Your task to perform on an android device: install app "Google Play Games" Image 0: 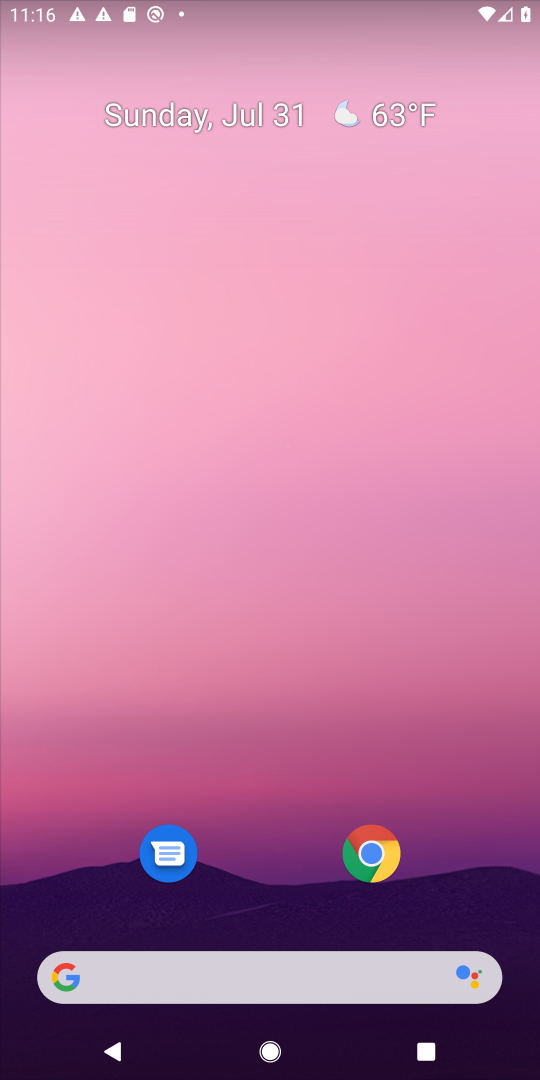
Step 0: drag from (330, 1049) to (293, 82)
Your task to perform on an android device: install app "Google Play Games" Image 1: 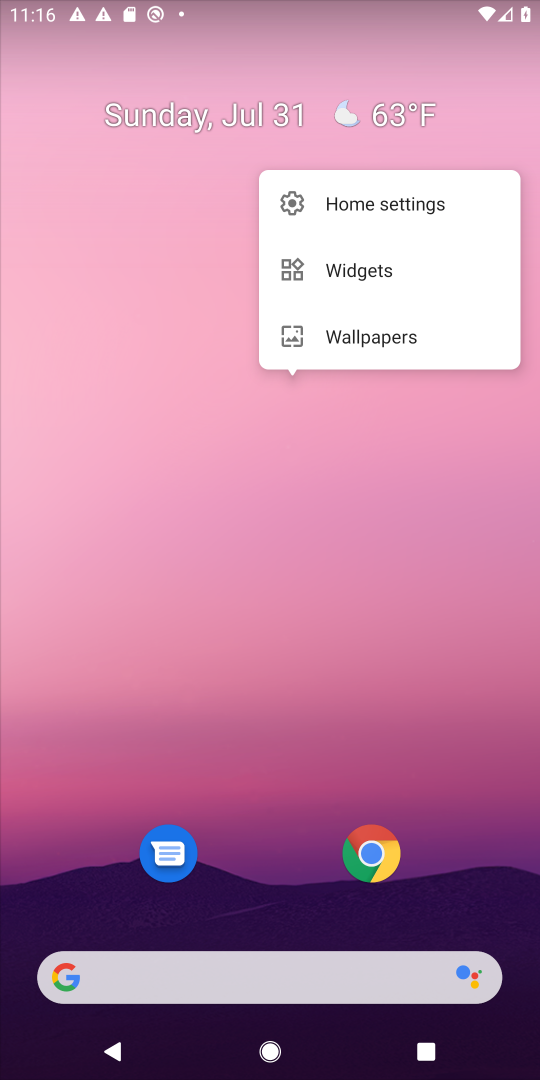
Step 1: click (317, 560)
Your task to perform on an android device: install app "Google Play Games" Image 2: 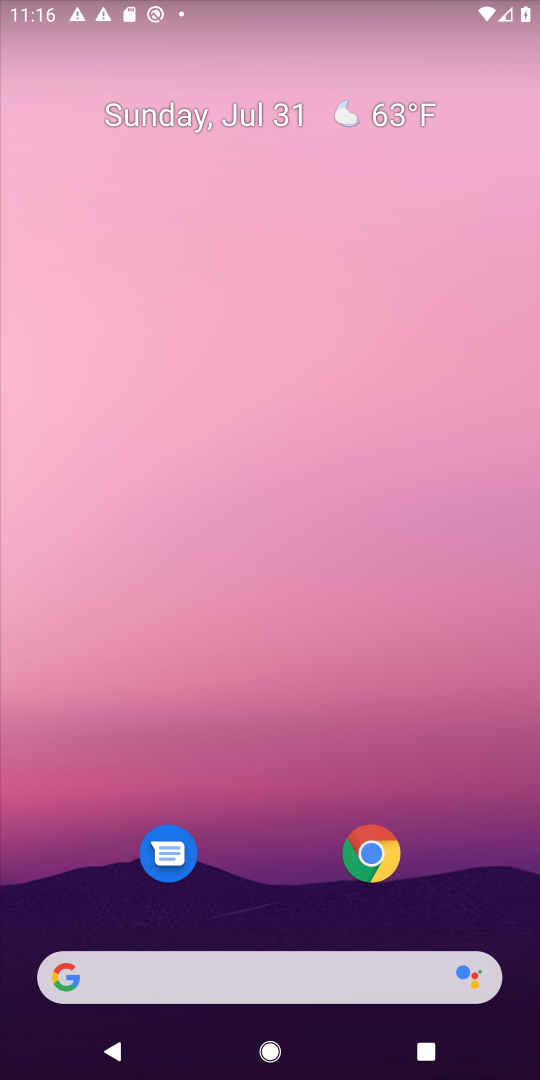
Step 2: click (326, 75)
Your task to perform on an android device: install app "Google Play Games" Image 3: 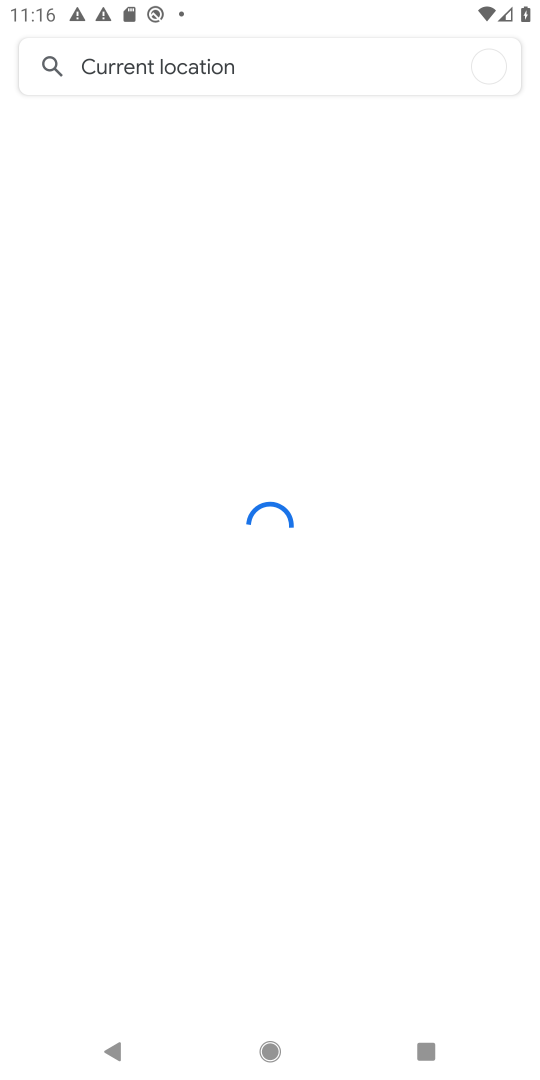
Step 3: press home button
Your task to perform on an android device: install app "Google Play Games" Image 4: 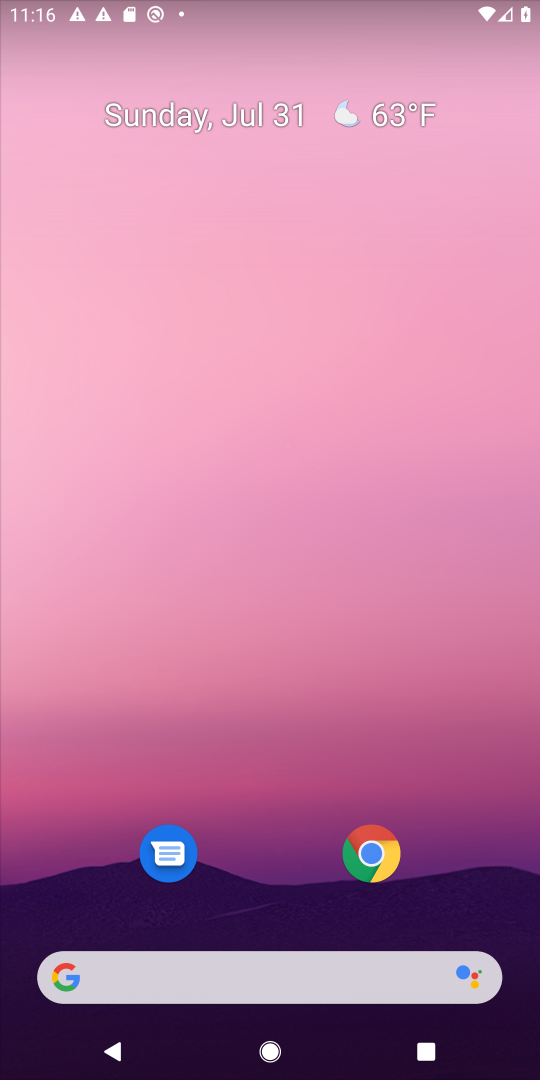
Step 4: drag from (311, 1036) to (325, 146)
Your task to perform on an android device: install app "Google Play Games" Image 5: 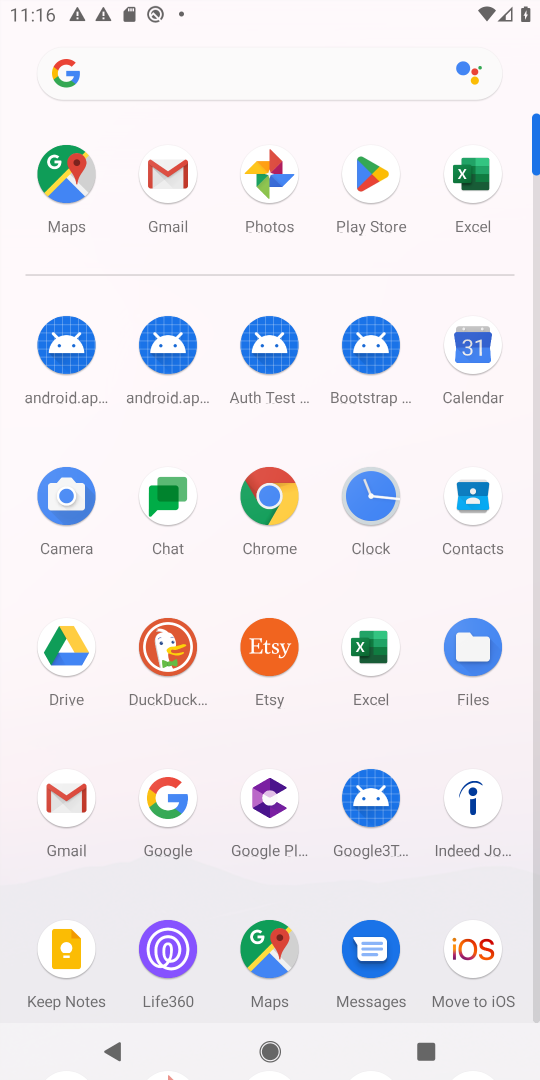
Step 5: click (372, 191)
Your task to perform on an android device: install app "Google Play Games" Image 6: 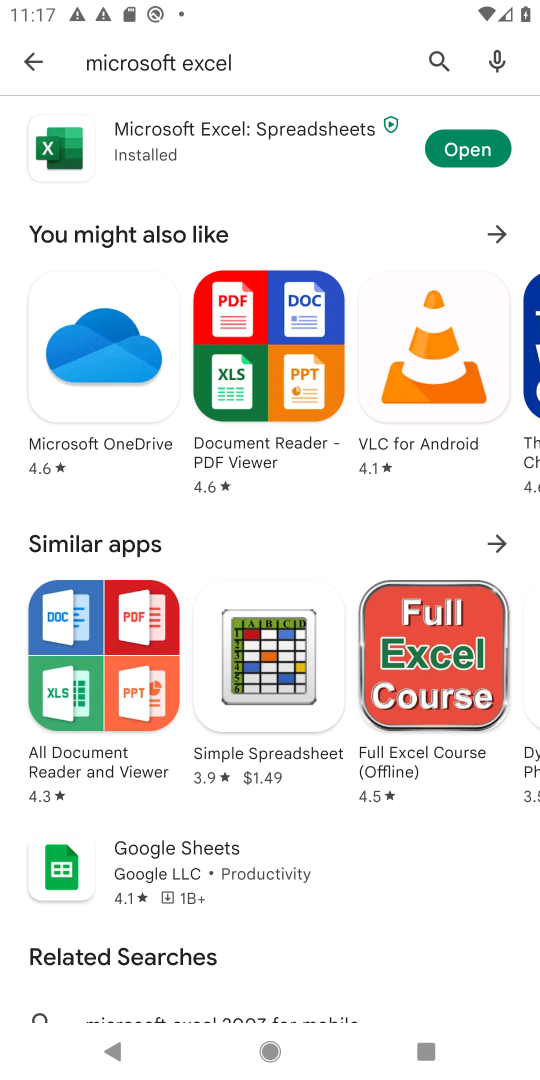
Step 6: click (439, 54)
Your task to perform on an android device: install app "Google Play Games" Image 7: 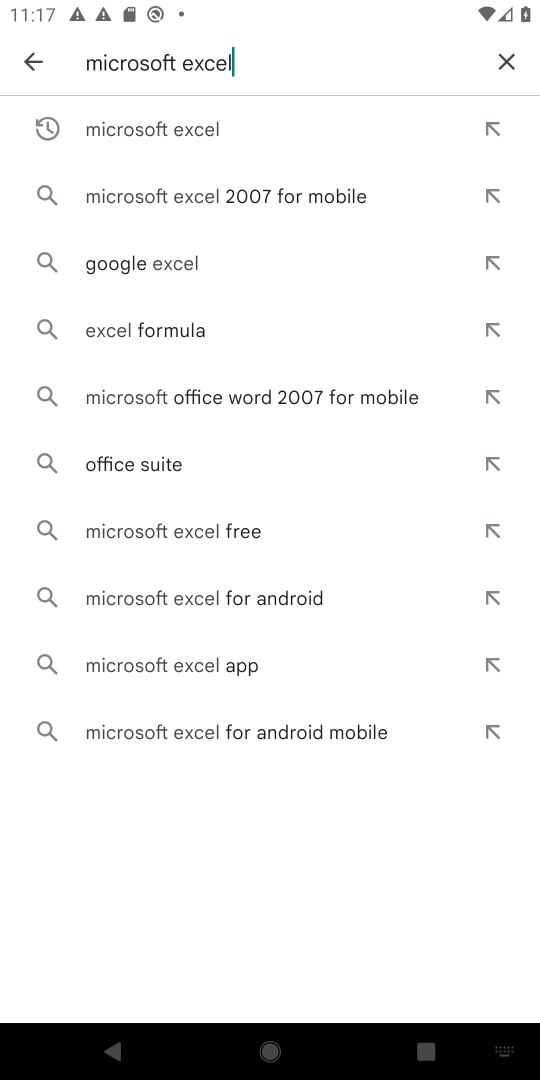
Step 7: click (509, 60)
Your task to perform on an android device: install app "Google Play Games" Image 8: 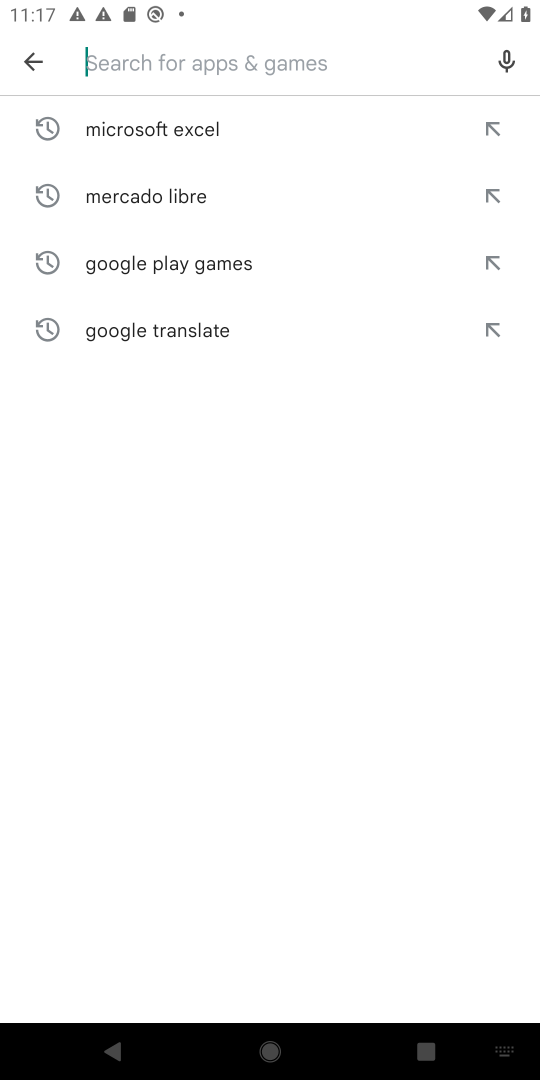
Step 8: type "Google Play Games"
Your task to perform on an android device: install app "Google Play Games" Image 9: 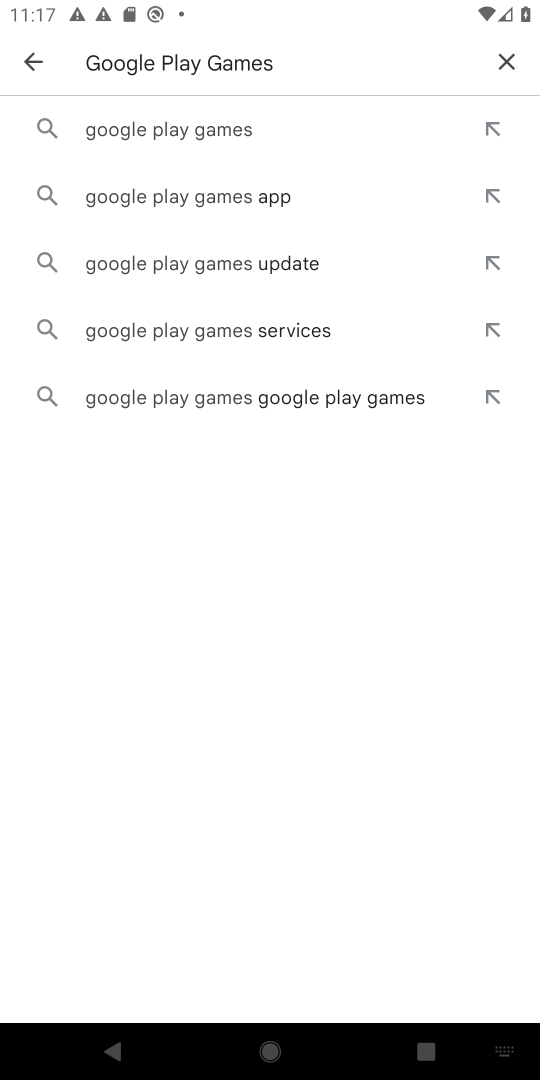
Step 9: click (175, 124)
Your task to perform on an android device: install app "Google Play Games" Image 10: 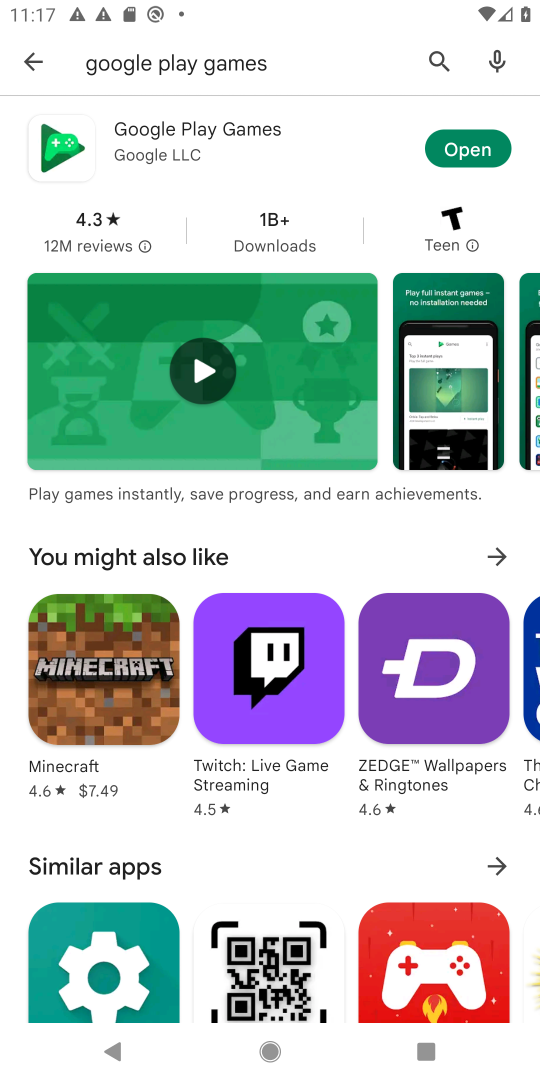
Step 10: task complete